Your task to perform on an android device: Open ESPN.com Image 0: 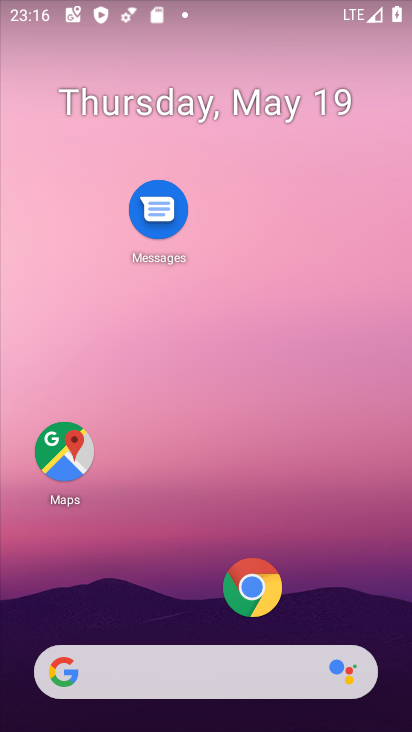
Step 0: click (250, 571)
Your task to perform on an android device: Open ESPN.com Image 1: 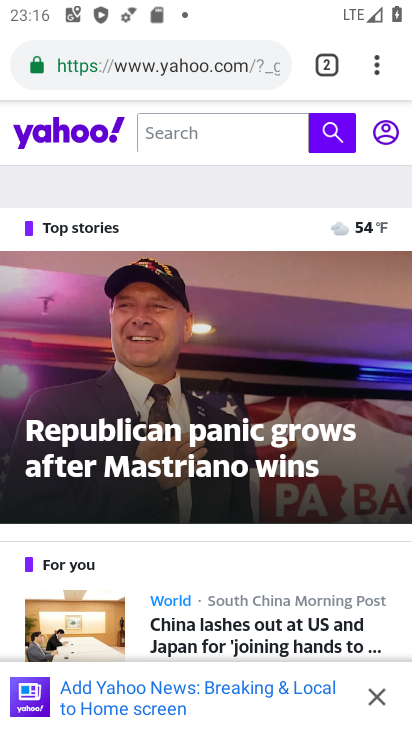
Step 1: click (201, 71)
Your task to perform on an android device: Open ESPN.com Image 2: 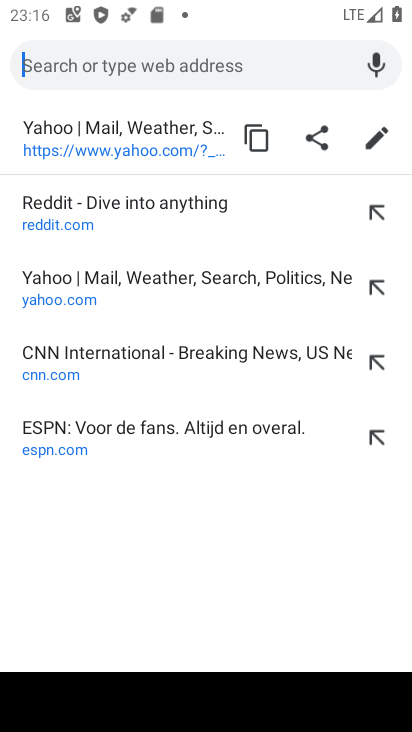
Step 2: click (193, 436)
Your task to perform on an android device: Open ESPN.com Image 3: 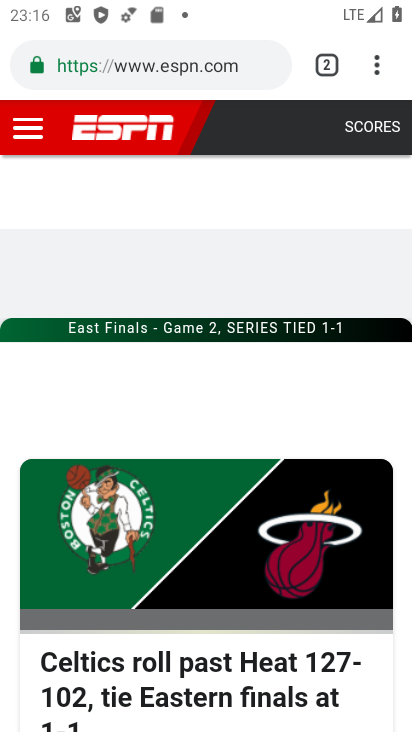
Step 3: task complete